Your task to perform on an android device: Go to sound settings Image 0: 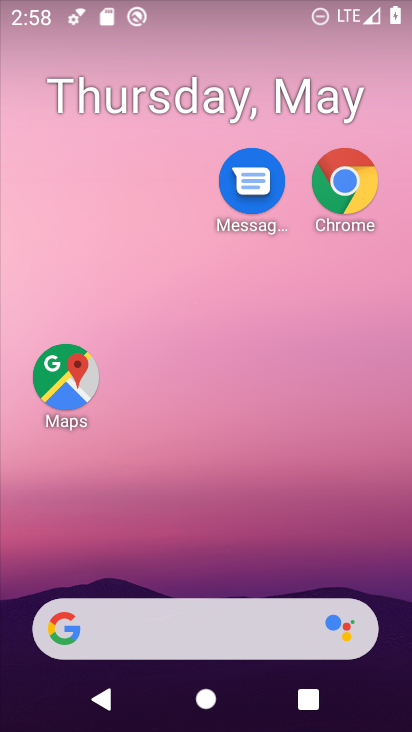
Step 0: drag from (286, 565) to (311, 31)
Your task to perform on an android device: Go to sound settings Image 1: 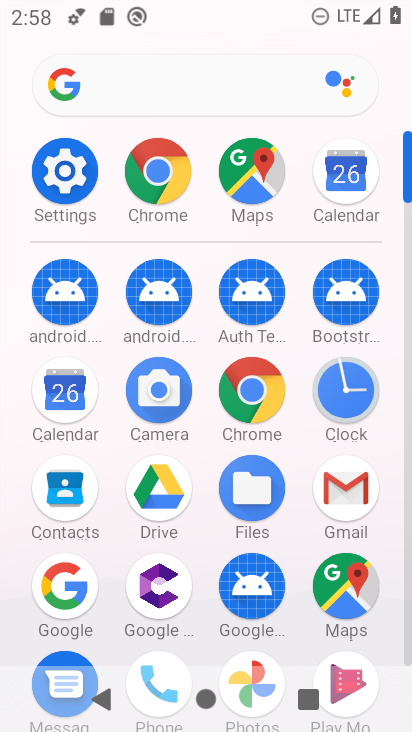
Step 1: click (64, 173)
Your task to perform on an android device: Go to sound settings Image 2: 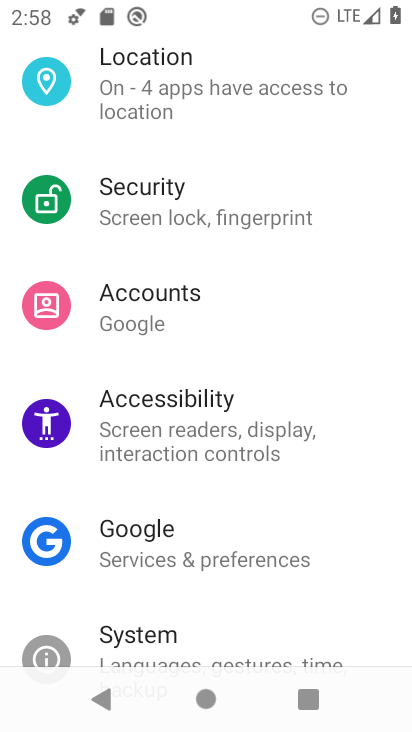
Step 2: drag from (194, 183) to (199, 664)
Your task to perform on an android device: Go to sound settings Image 3: 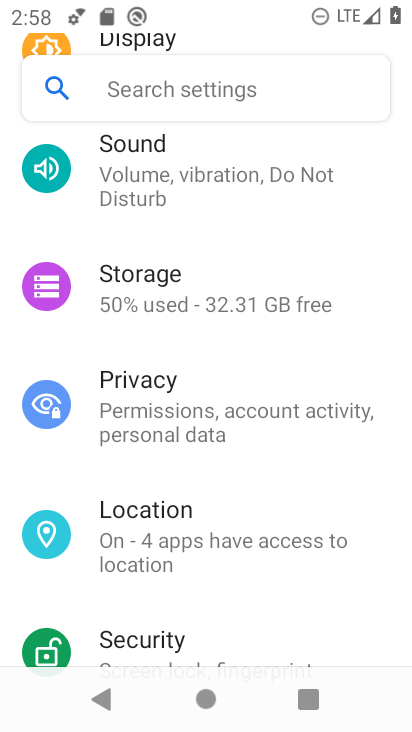
Step 3: click (189, 175)
Your task to perform on an android device: Go to sound settings Image 4: 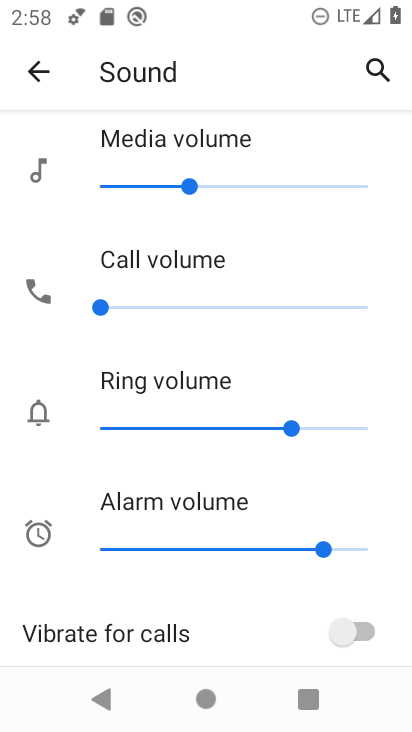
Step 4: task complete